Your task to perform on an android device: Go to settings Image 0: 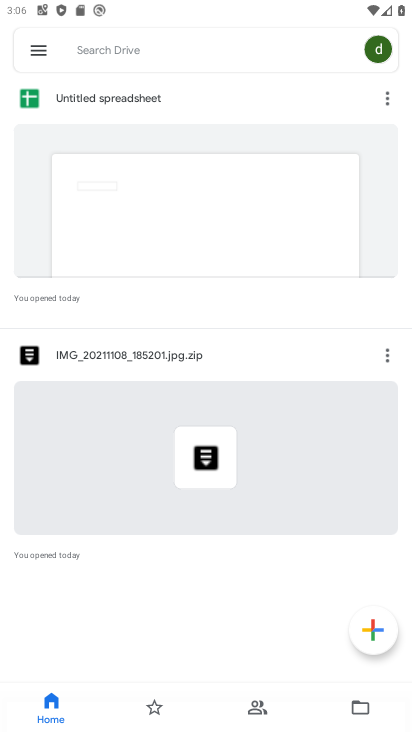
Step 0: press back button
Your task to perform on an android device: Go to settings Image 1: 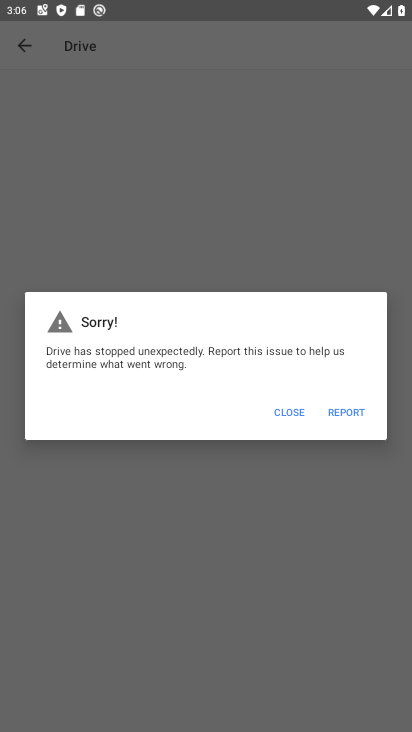
Step 1: press home button
Your task to perform on an android device: Go to settings Image 2: 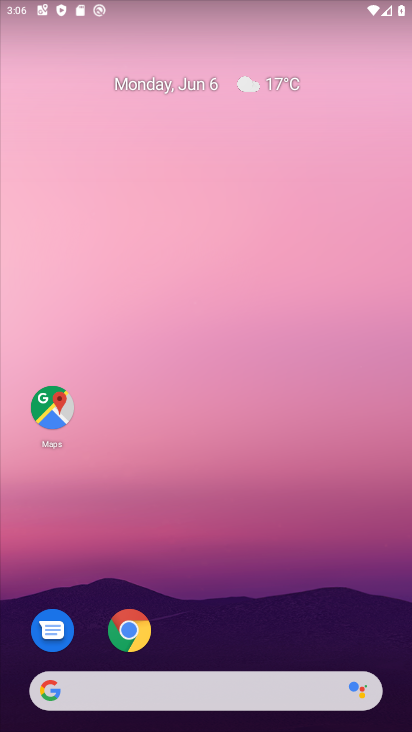
Step 2: drag from (207, 637) to (304, 5)
Your task to perform on an android device: Go to settings Image 3: 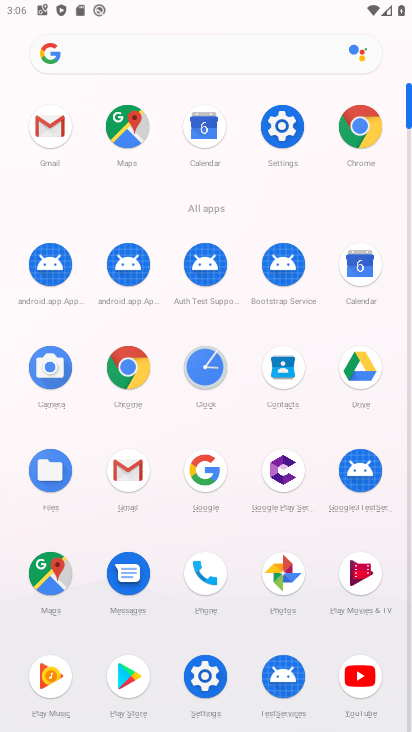
Step 3: click (280, 138)
Your task to perform on an android device: Go to settings Image 4: 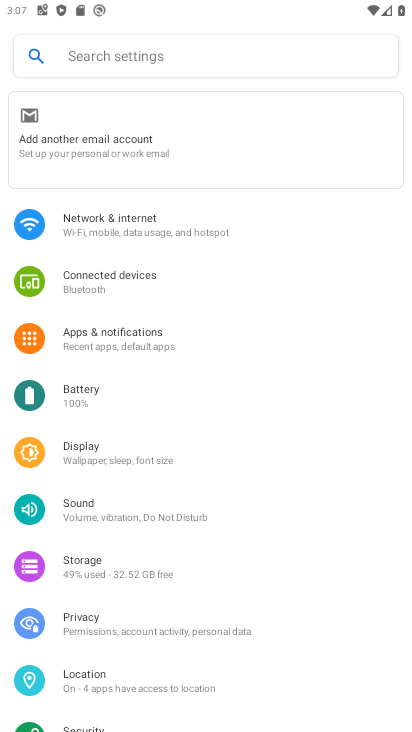
Step 4: task complete